Your task to perform on an android device: uninstall "Venmo" Image 0: 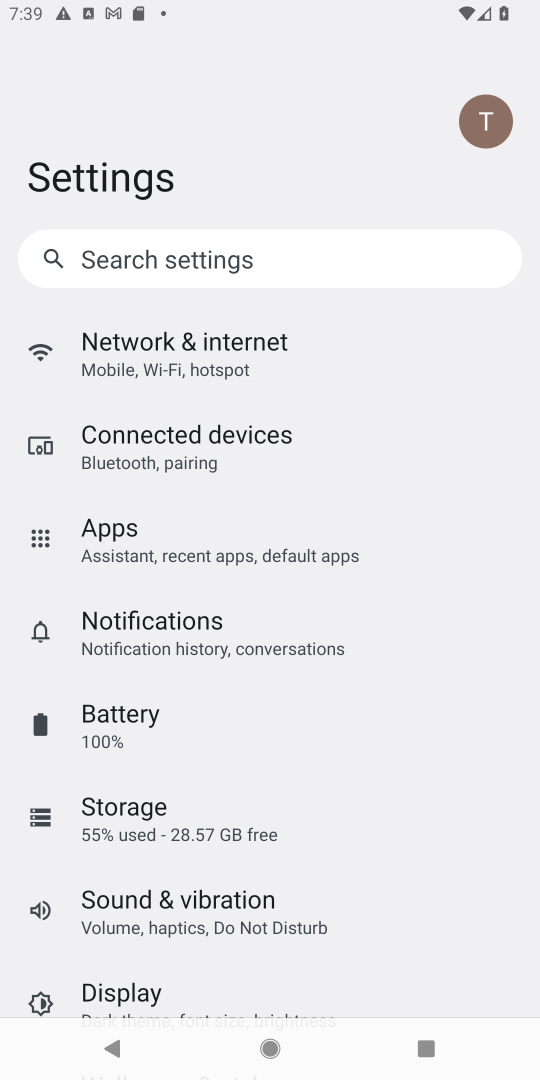
Step 0: press home button
Your task to perform on an android device: uninstall "Venmo" Image 1: 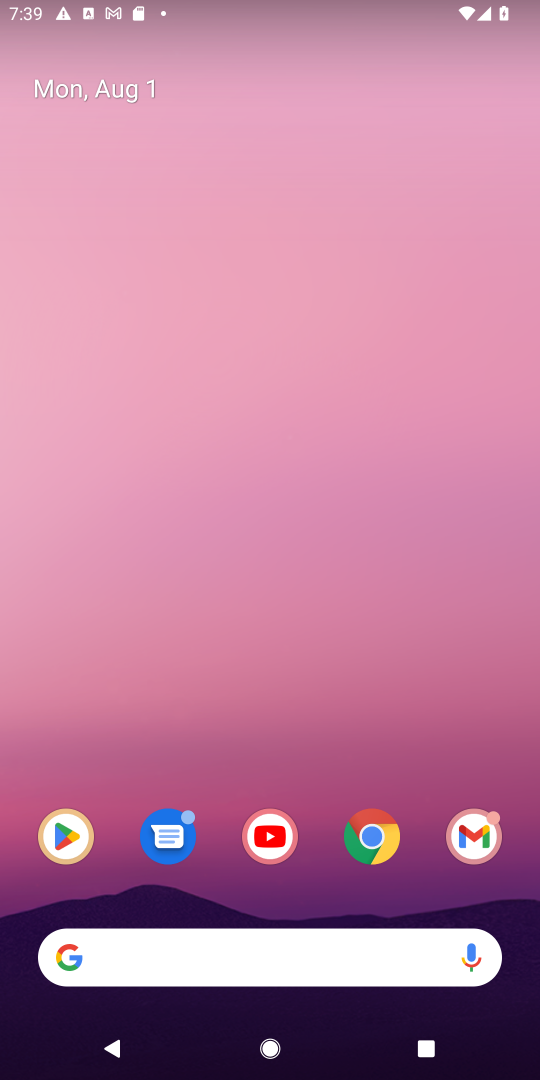
Step 1: click (54, 828)
Your task to perform on an android device: uninstall "Venmo" Image 2: 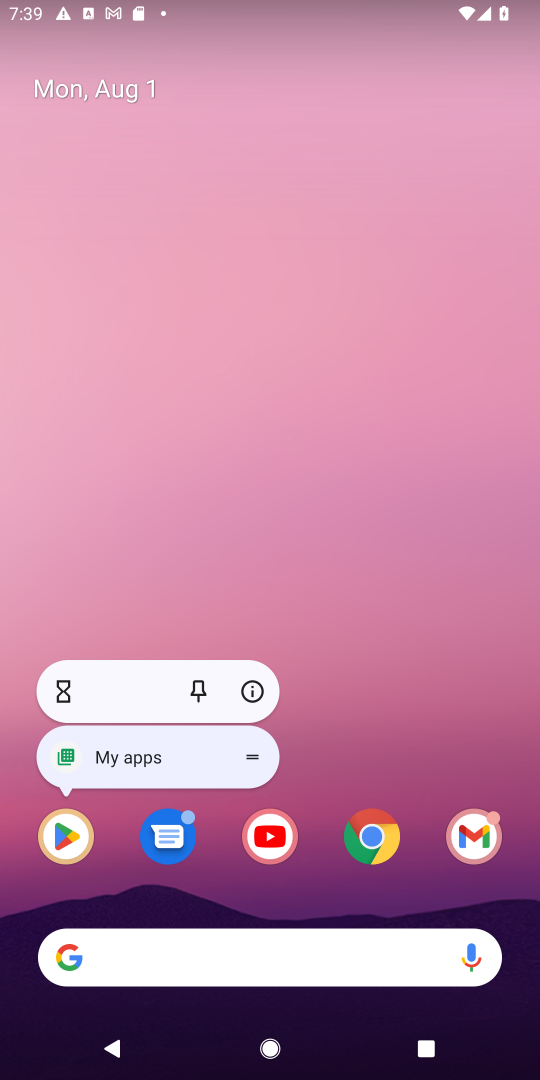
Step 2: click (54, 830)
Your task to perform on an android device: uninstall "Venmo" Image 3: 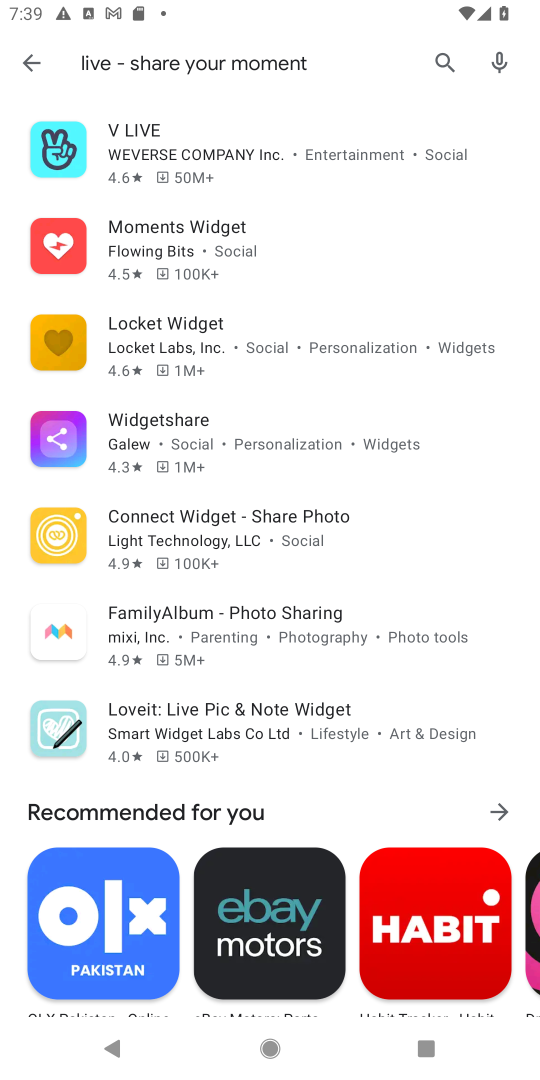
Step 3: click (442, 56)
Your task to perform on an android device: uninstall "Venmo" Image 4: 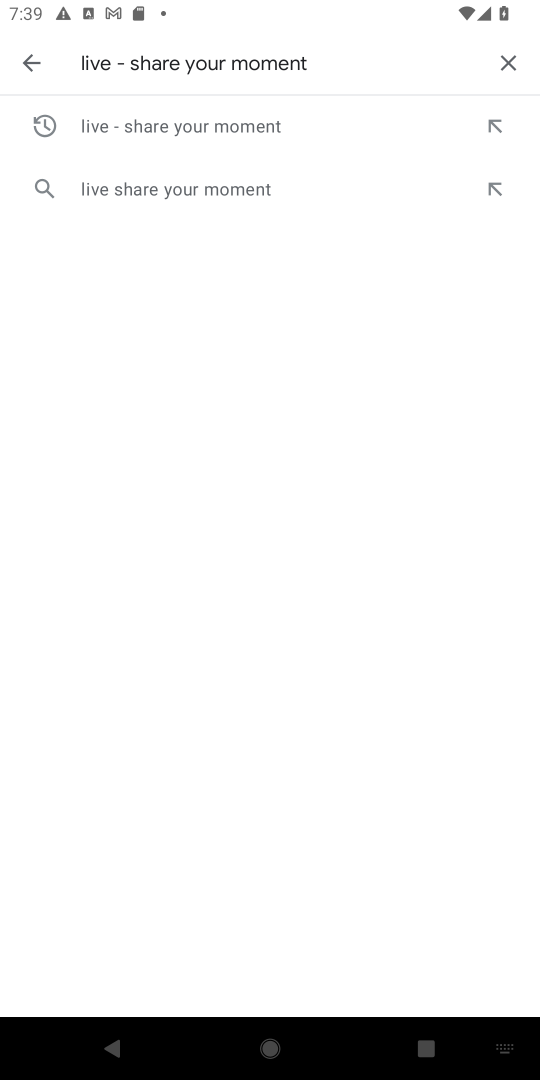
Step 4: click (517, 54)
Your task to perform on an android device: uninstall "Venmo" Image 5: 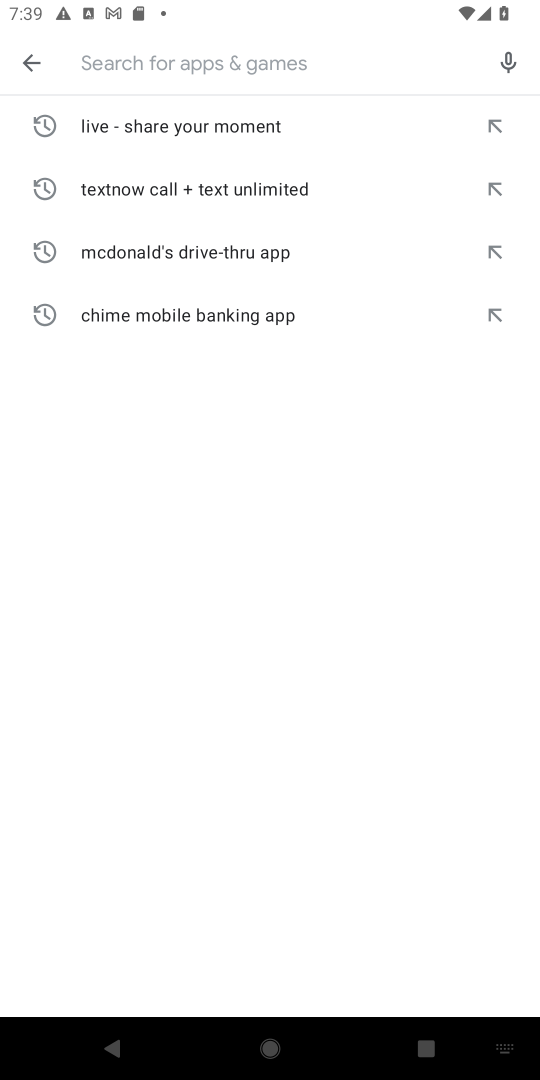
Step 5: type "Venmo"
Your task to perform on an android device: uninstall "Venmo" Image 6: 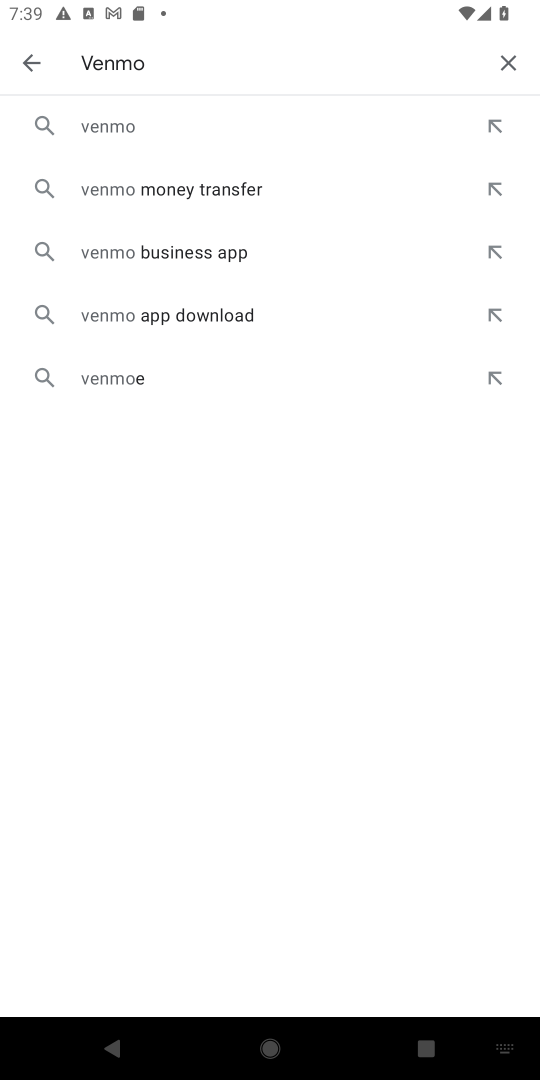
Step 6: click (171, 121)
Your task to perform on an android device: uninstall "Venmo" Image 7: 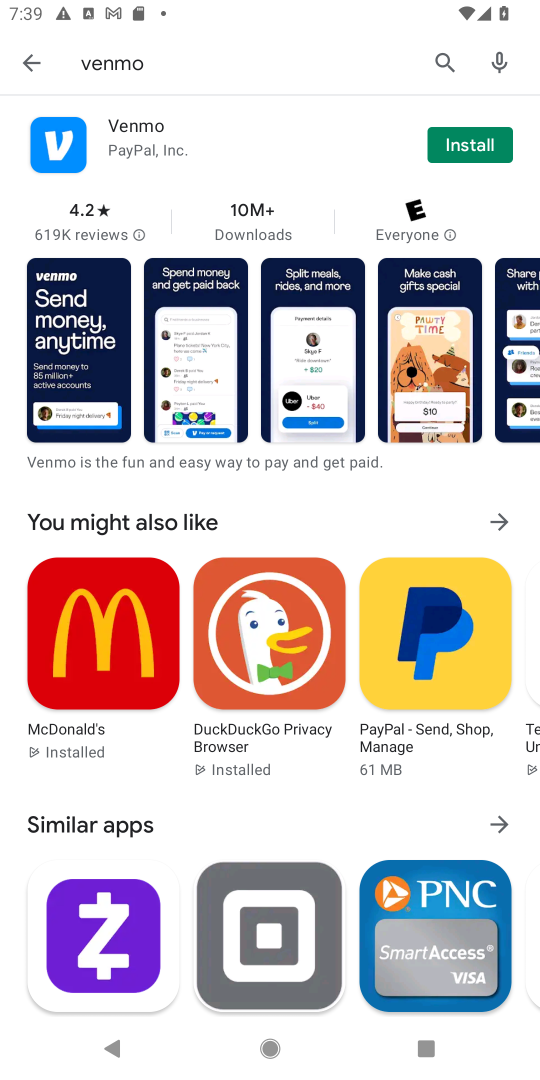
Step 7: task complete